Your task to perform on an android device: Open sound settings Image 0: 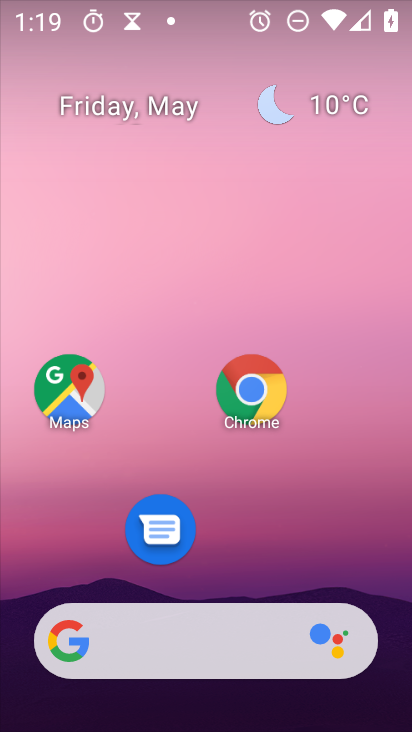
Step 0: press home button
Your task to perform on an android device: Open sound settings Image 1: 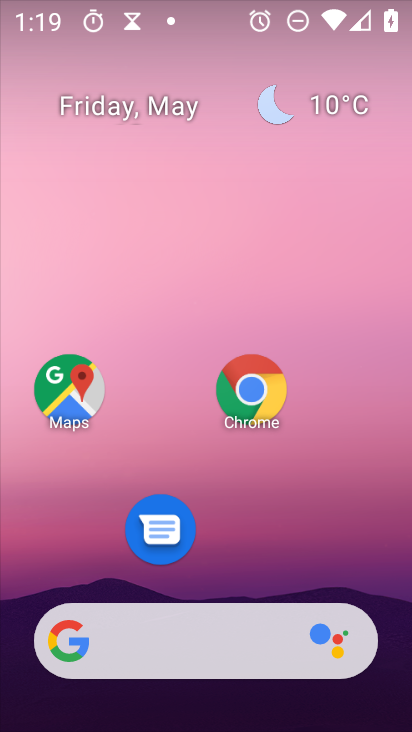
Step 1: drag from (183, 650) to (259, 91)
Your task to perform on an android device: Open sound settings Image 2: 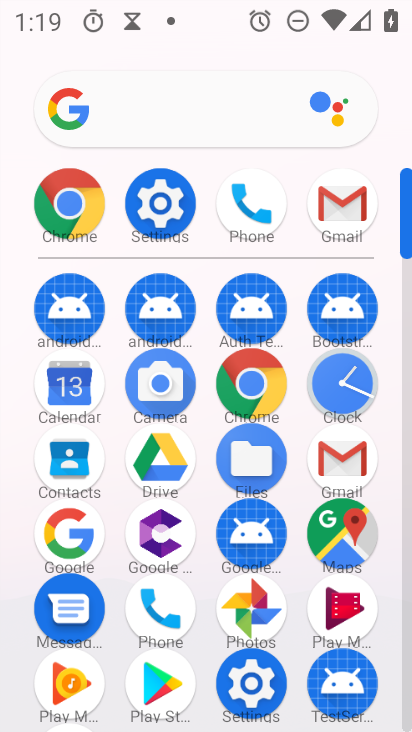
Step 2: click (170, 201)
Your task to perform on an android device: Open sound settings Image 3: 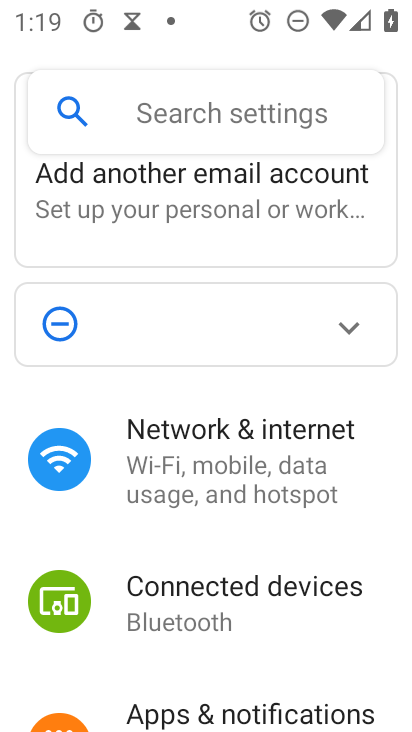
Step 3: drag from (178, 651) to (350, 131)
Your task to perform on an android device: Open sound settings Image 4: 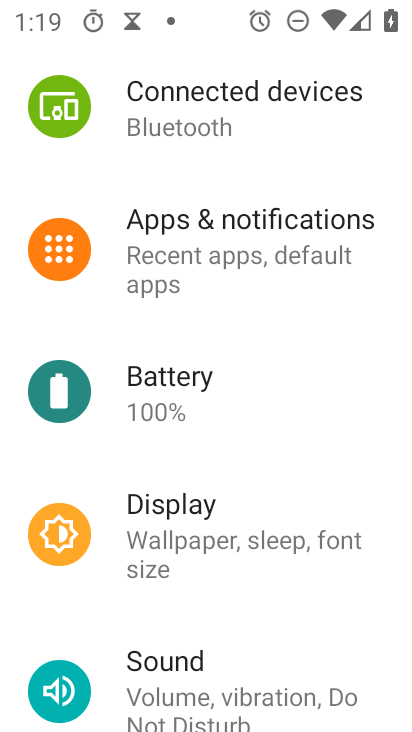
Step 4: click (164, 662)
Your task to perform on an android device: Open sound settings Image 5: 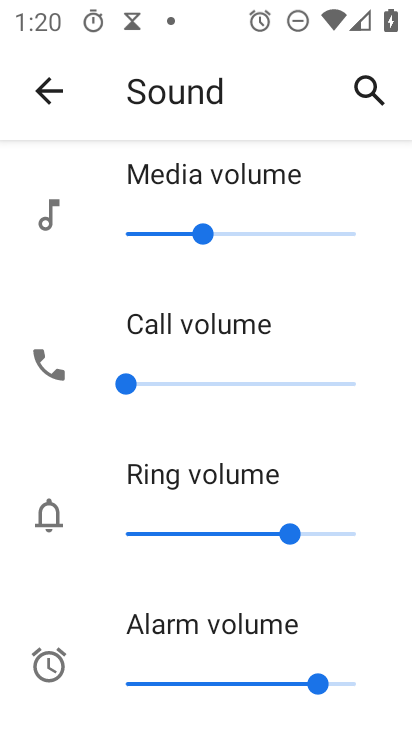
Step 5: task complete